Your task to perform on an android device: clear all cookies in the chrome app Image 0: 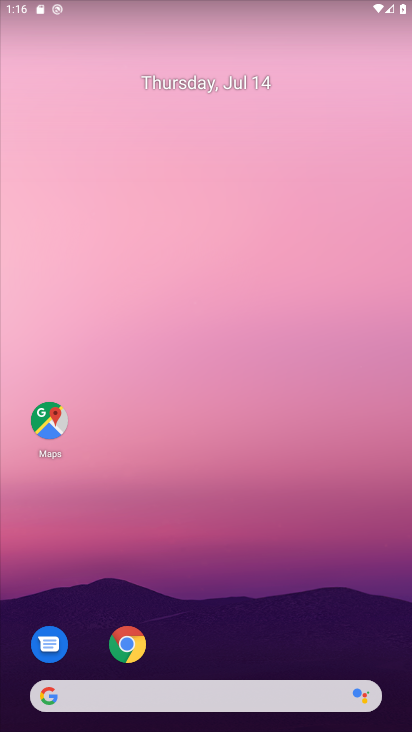
Step 0: click (123, 650)
Your task to perform on an android device: clear all cookies in the chrome app Image 1: 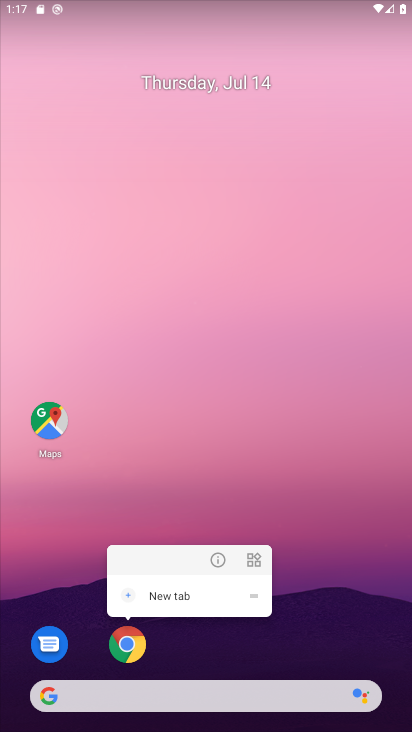
Step 1: click (127, 647)
Your task to perform on an android device: clear all cookies in the chrome app Image 2: 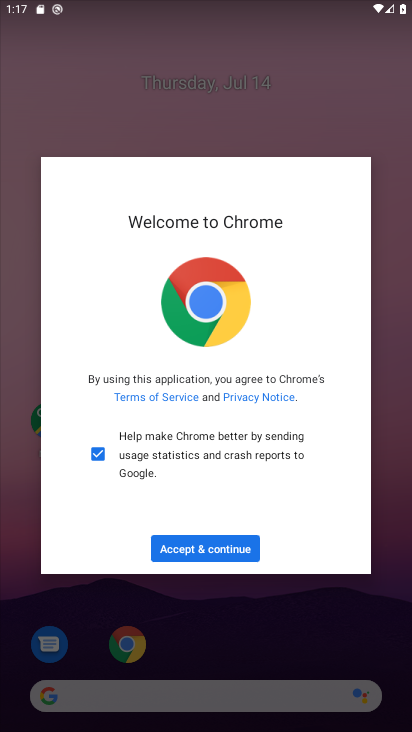
Step 2: click (219, 548)
Your task to perform on an android device: clear all cookies in the chrome app Image 3: 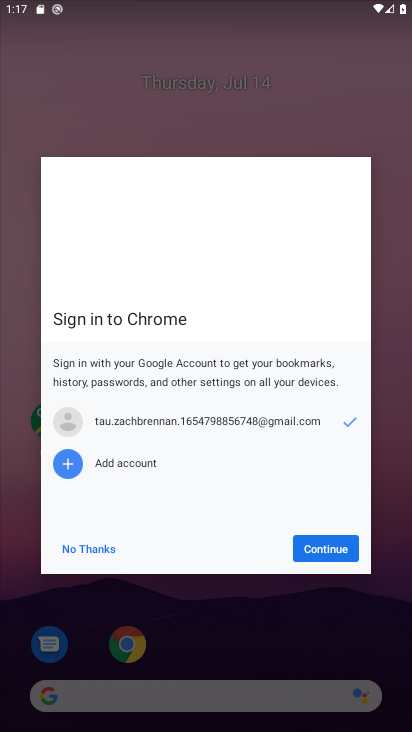
Step 3: click (332, 559)
Your task to perform on an android device: clear all cookies in the chrome app Image 4: 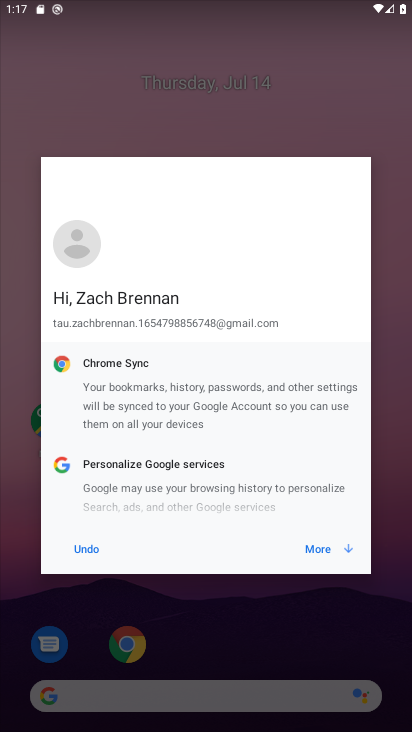
Step 4: click (332, 559)
Your task to perform on an android device: clear all cookies in the chrome app Image 5: 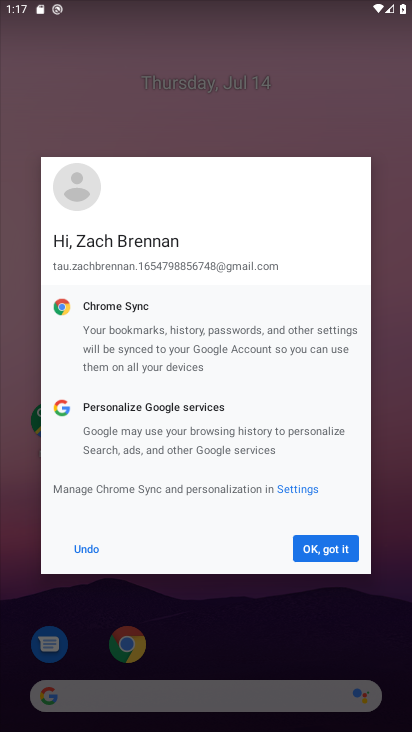
Step 5: click (332, 559)
Your task to perform on an android device: clear all cookies in the chrome app Image 6: 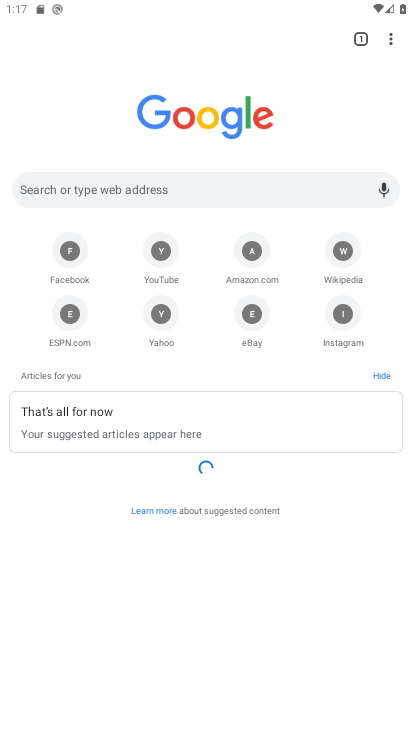
Step 6: drag from (394, 37) to (289, 334)
Your task to perform on an android device: clear all cookies in the chrome app Image 7: 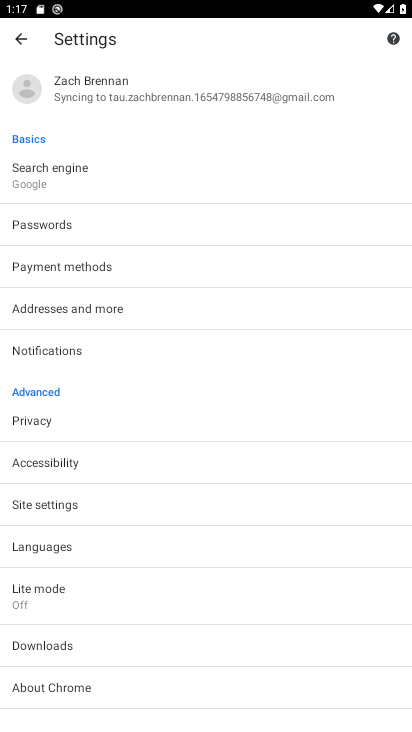
Step 7: click (88, 434)
Your task to perform on an android device: clear all cookies in the chrome app Image 8: 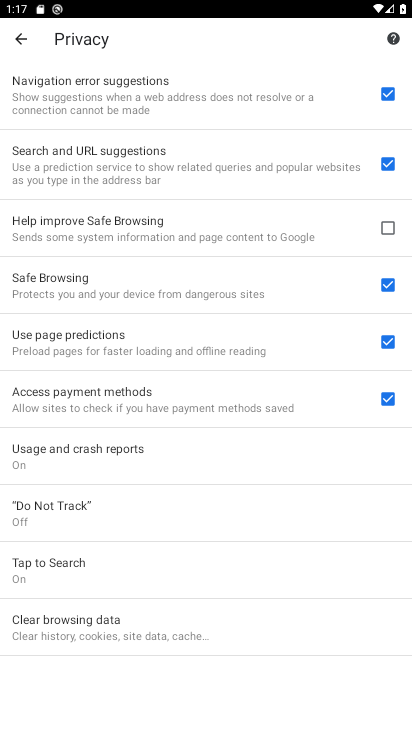
Step 8: click (164, 633)
Your task to perform on an android device: clear all cookies in the chrome app Image 9: 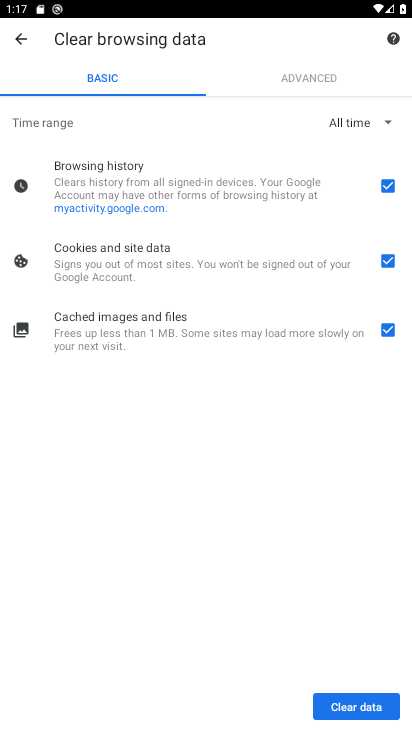
Step 9: click (391, 181)
Your task to perform on an android device: clear all cookies in the chrome app Image 10: 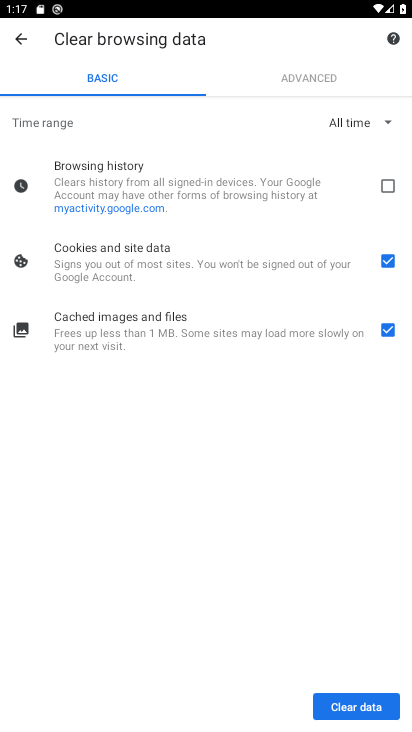
Step 10: click (389, 325)
Your task to perform on an android device: clear all cookies in the chrome app Image 11: 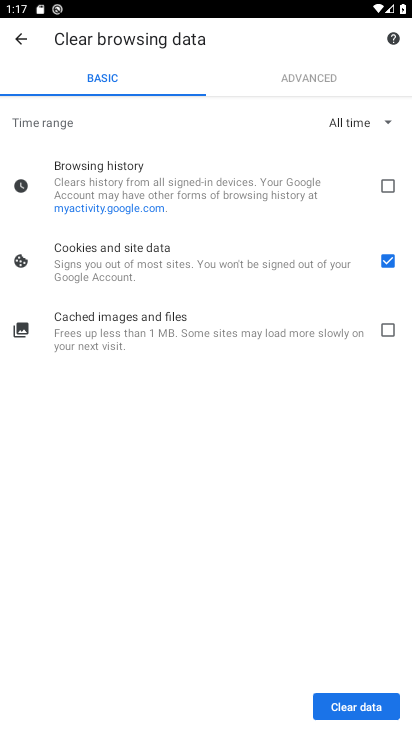
Step 11: click (361, 702)
Your task to perform on an android device: clear all cookies in the chrome app Image 12: 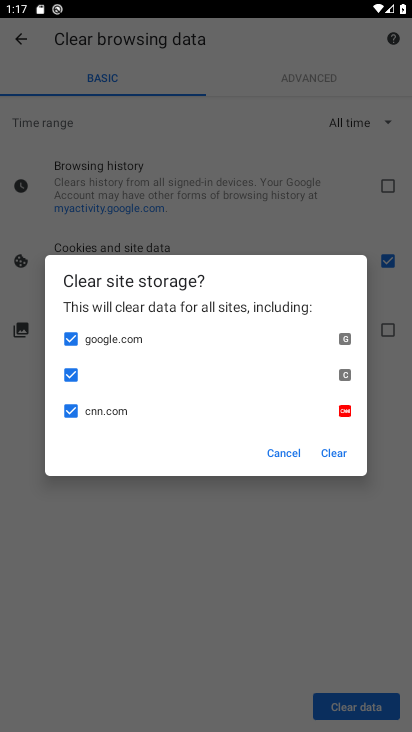
Step 12: click (341, 449)
Your task to perform on an android device: clear all cookies in the chrome app Image 13: 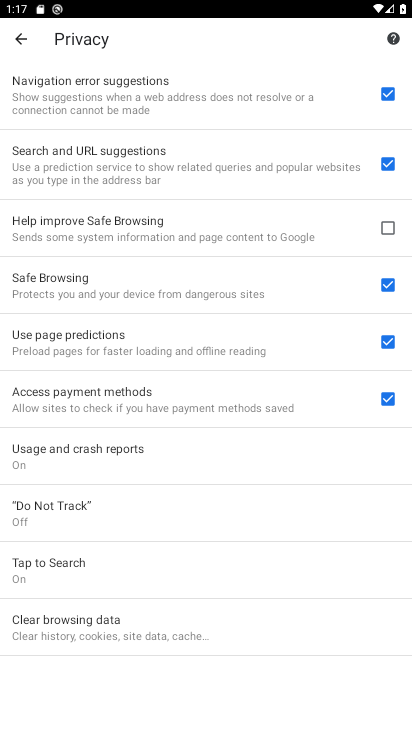
Step 13: task complete